Your task to perform on an android device: check data usage Image 0: 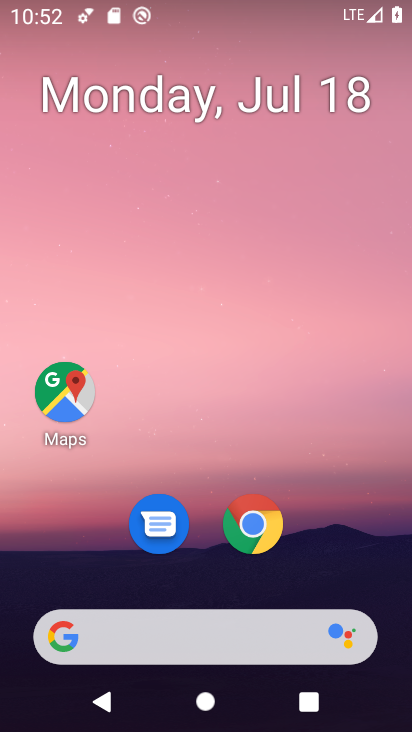
Step 0: drag from (309, 555) to (297, 51)
Your task to perform on an android device: check data usage Image 1: 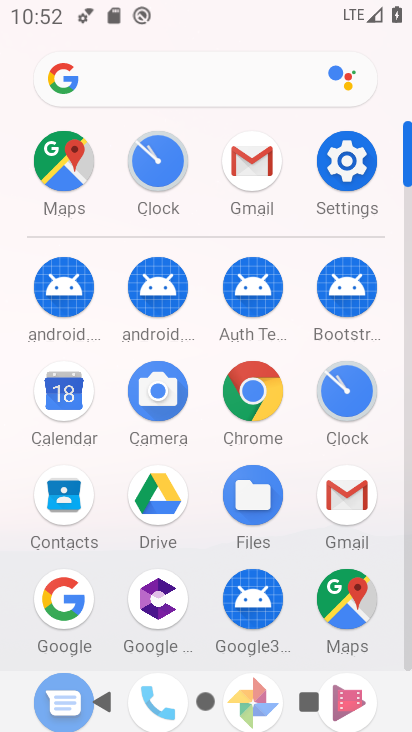
Step 1: click (343, 152)
Your task to perform on an android device: check data usage Image 2: 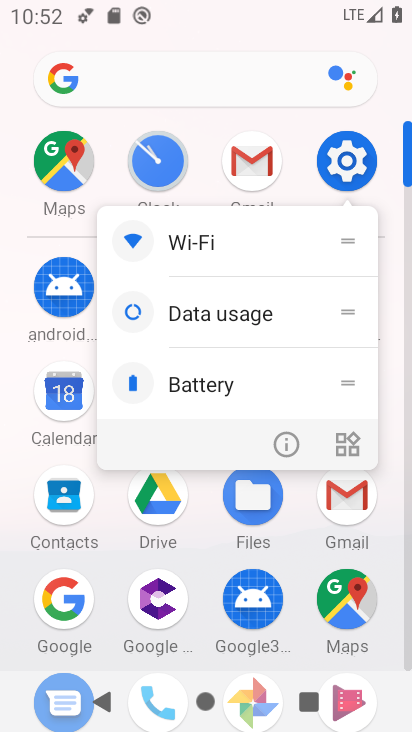
Step 2: click (353, 152)
Your task to perform on an android device: check data usage Image 3: 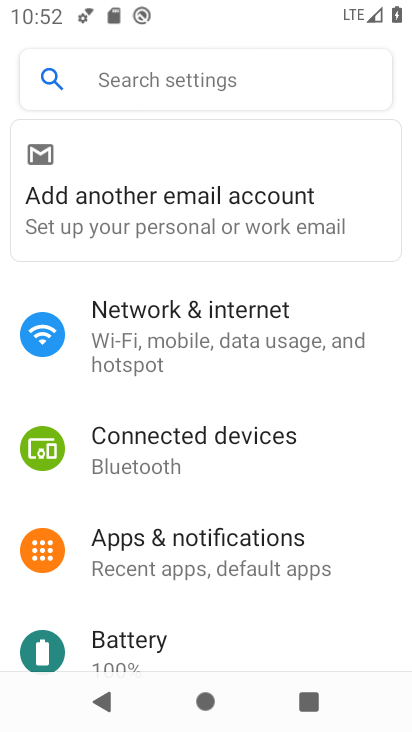
Step 3: click (245, 335)
Your task to perform on an android device: check data usage Image 4: 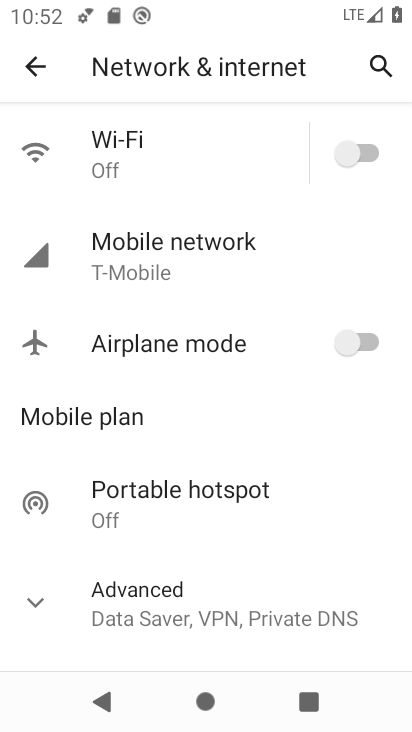
Step 4: click (231, 252)
Your task to perform on an android device: check data usage Image 5: 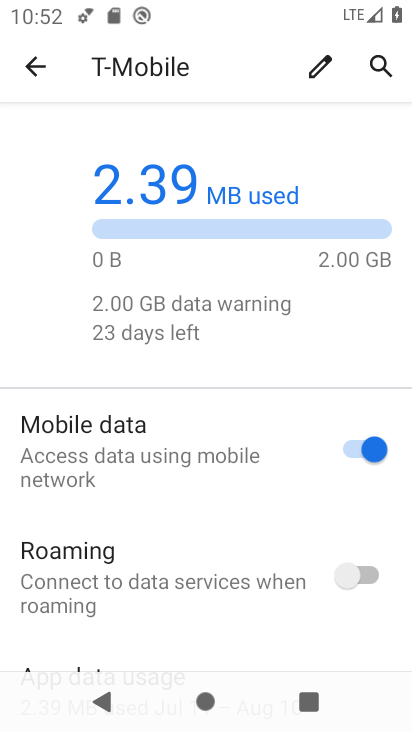
Step 5: task complete